Your task to perform on an android device: Toggle the flashlight Image 0: 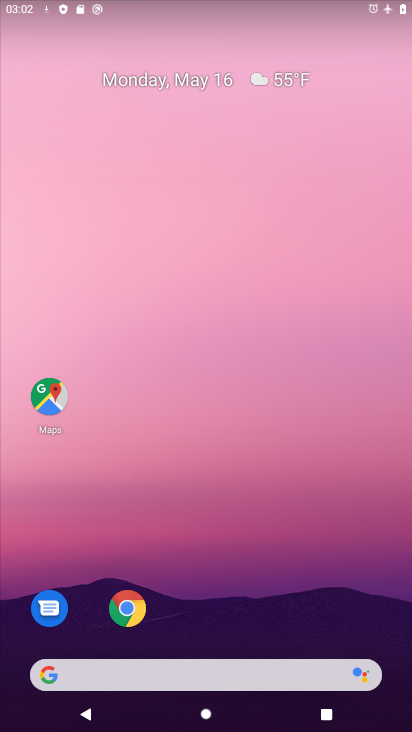
Step 0: drag from (190, 623) to (206, 282)
Your task to perform on an android device: Toggle the flashlight Image 1: 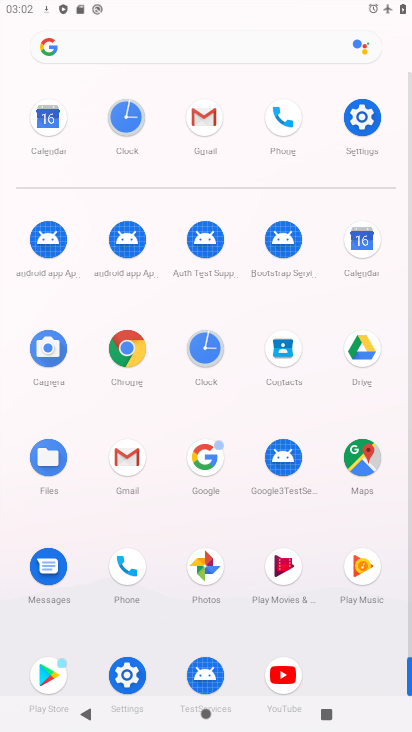
Step 1: click (346, 115)
Your task to perform on an android device: Toggle the flashlight Image 2: 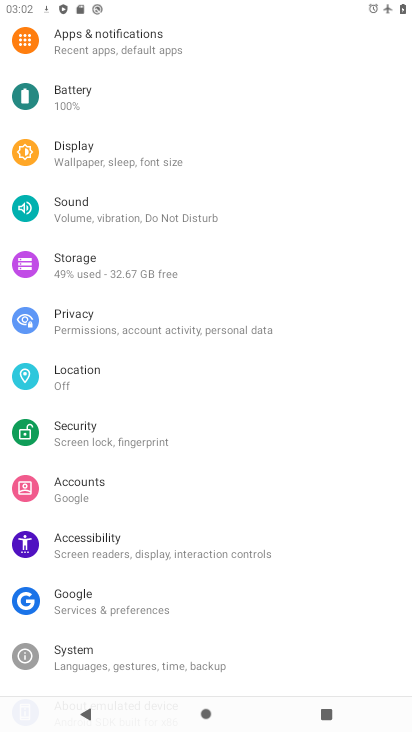
Step 2: task complete